Your task to perform on an android device: add a contact in the contacts app Image 0: 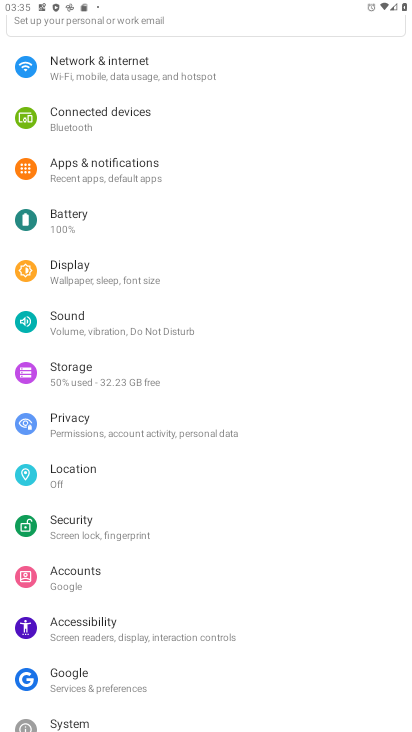
Step 0: press home button
Your task to perform on an android device: add a contact in the contacts app Image 1: 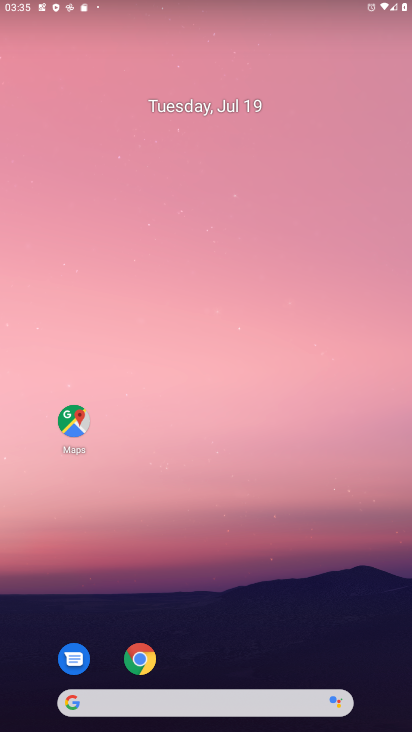
Step 1: drag from (288, 623) to (270, 256)
Your task to perform on an android device: add a contact in the contacts app Image 2: 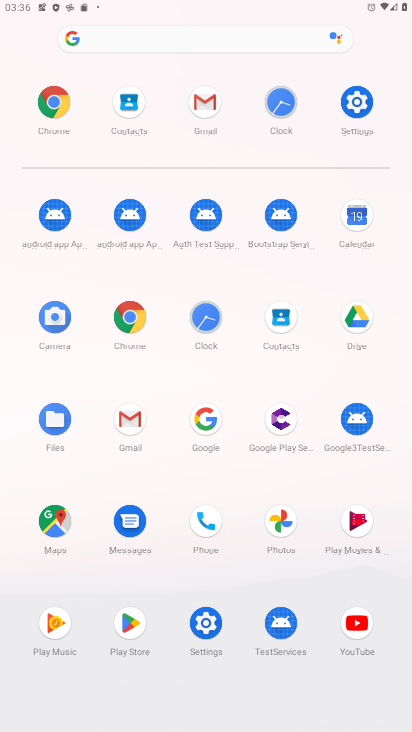
Step 2: click (297, 310)
Your task to perform on an android device: add a contact in the contacts app Image 3: 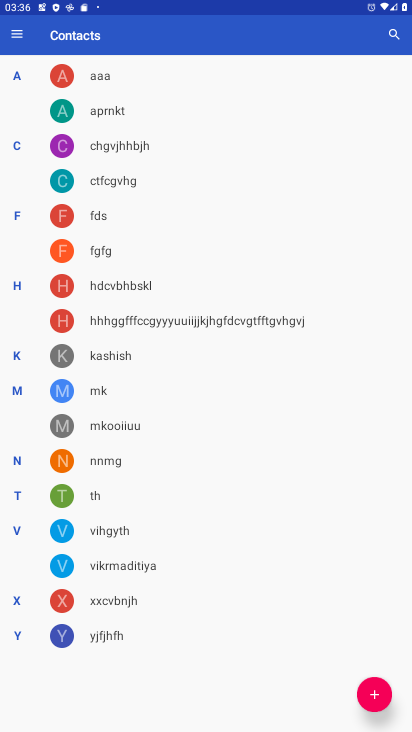
Step 3: click (366, 703)
Your task to perform on an android device: add a contact in the contacts app Image 4: 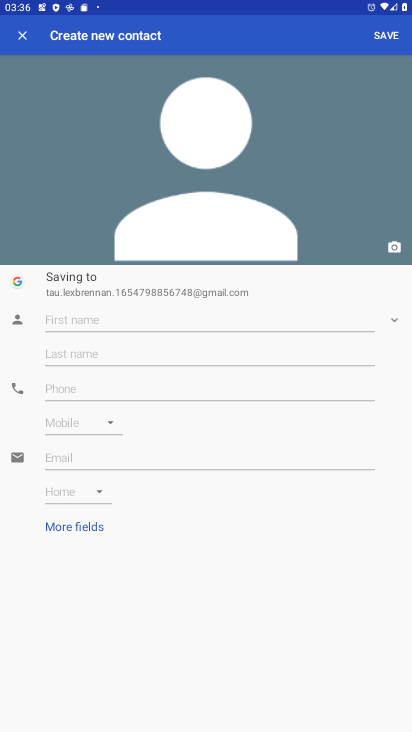
Step 4: click (135, 313)
Your task to perform on an android device: add a contact in the contacts app Image 5: 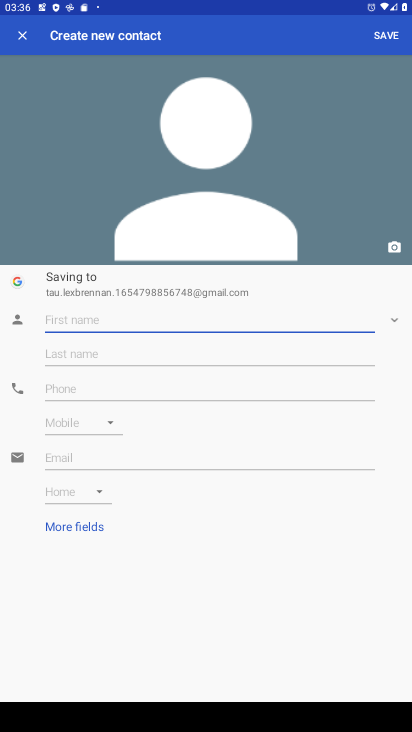
Step 5: type "ssxxax"
Your task to perform on an android device: add a contact in the contacts app Image 6: 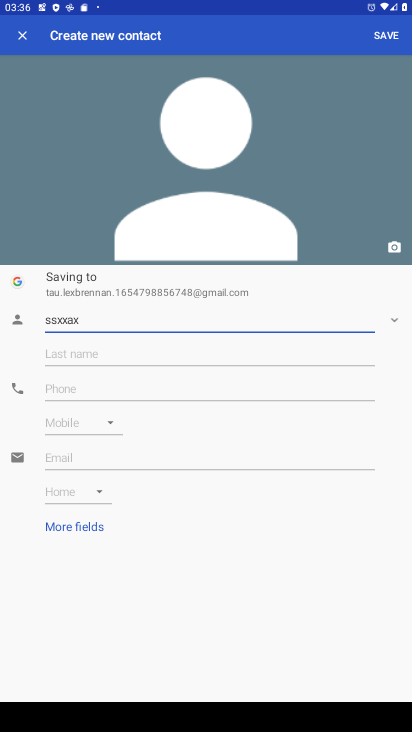
Step 6: click (133, 383)
Your task to perform on an android device: add a contact in the contacts app Image 7: 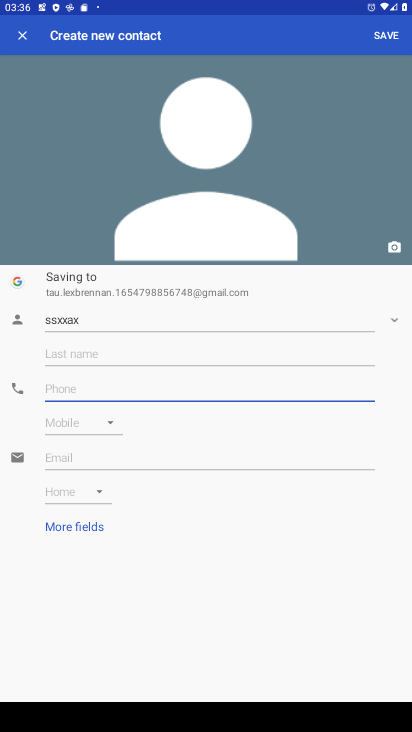
Step 7: type "11111111111"
Your task to perform on an android device: add a contact in the contacts app Image 8: 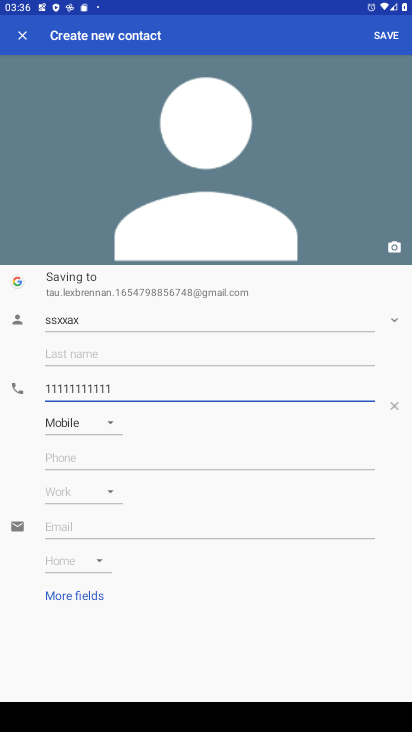
Step 8: click (389, 34)
Your task to perform on an android device: add a contact in the contacts app Image 9: 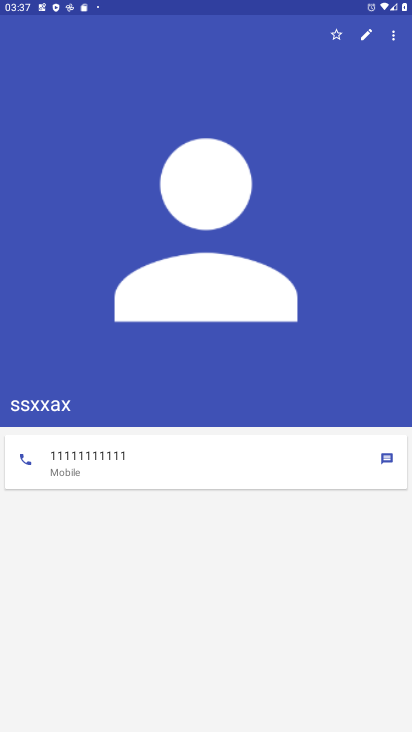
Step 9: task complete